Your task to perform on an android device: Open battery settings Image 0: 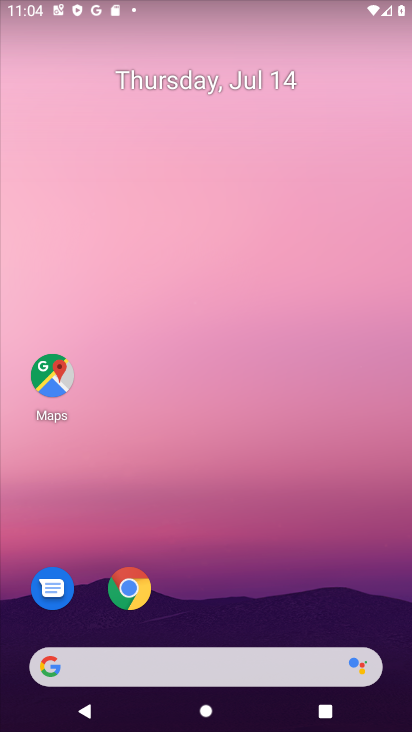
Step 0: press home button
Your task to perform on an android device: Open battery settings Image 1: 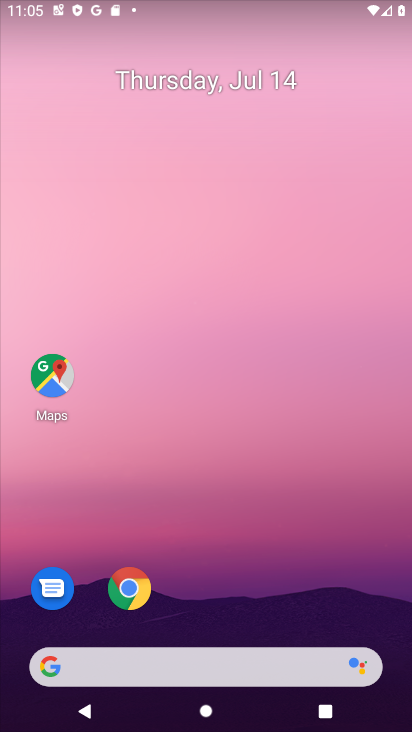
Step 1: drag from (210, 643) to (215, 140)
Your task to perform on an android device: Open battery settings Image 2: 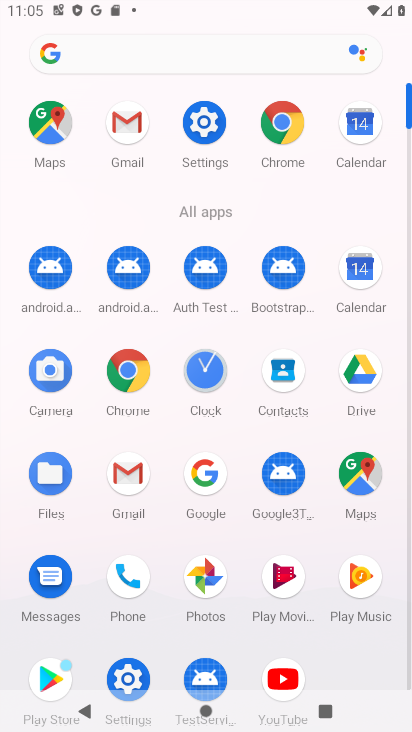
Step 2: click (119, 677)
Your task to perform on an android device: Open battery settings Image 3: 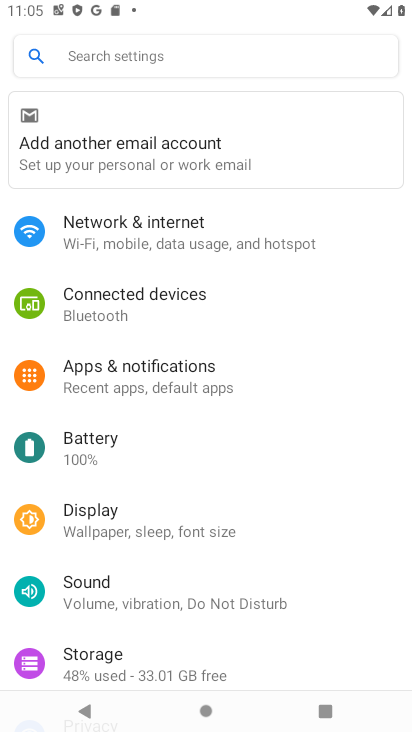
Step 3: drag from (120, 600) to (152, 230)
Your task to perform on an android device: Open battery settings Image 4: 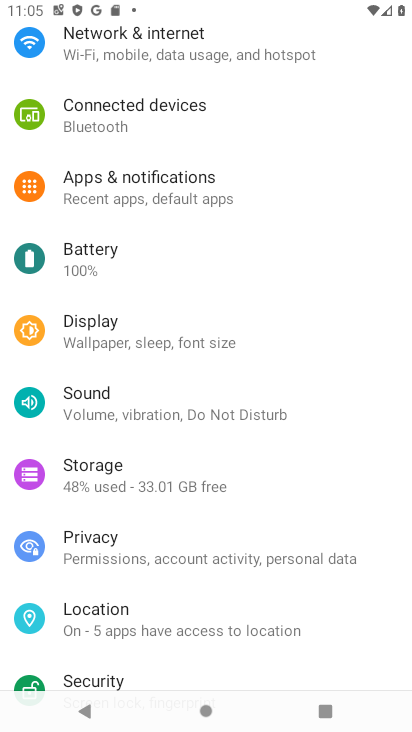
Step 4: drag from (119, 671) to (248, 398)
Your task to perform on an android device: Open battery settings Image 5: 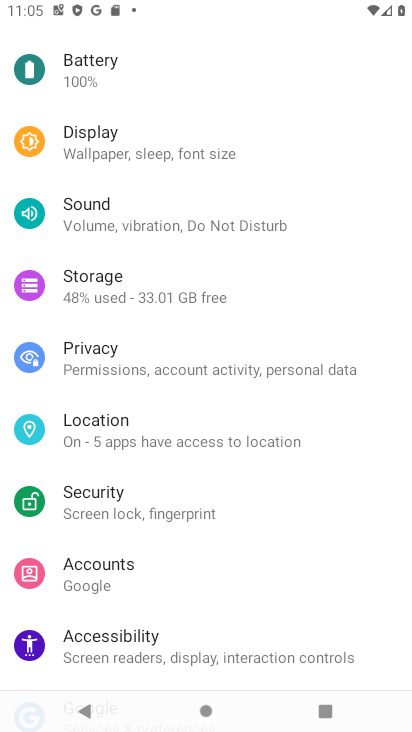
Step 5: click (81, 62)
Your task to perform on an android device: Open battery settings Image 6: 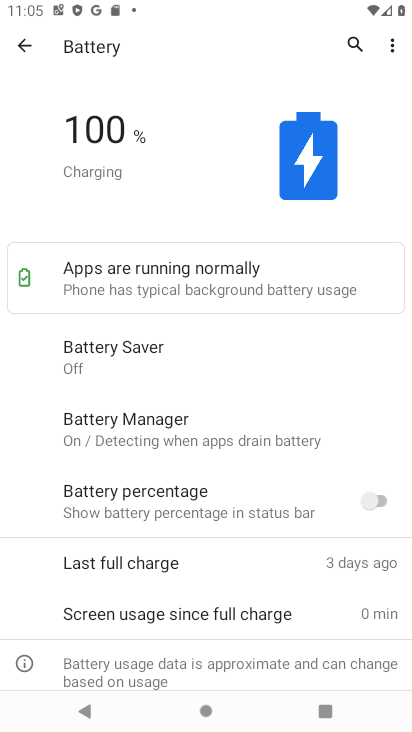
Step 6: task complete